Your task to perform on an android device: allow notifications from all sites in the chrome app Image 0: 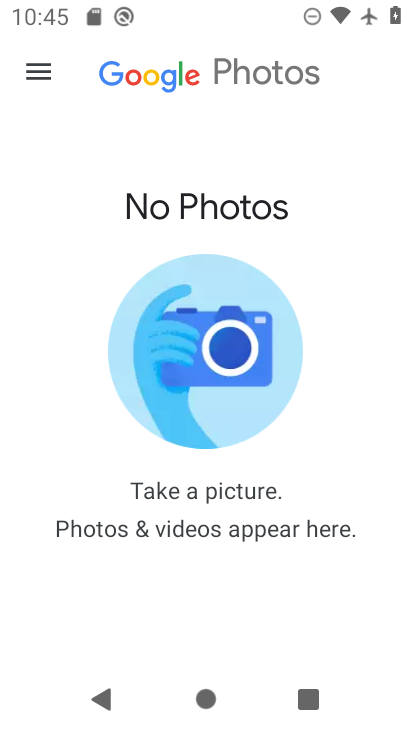
Step 0: press back button
Your task to perform on an android device: allow notifications from all sites in the chrome app Image 1: 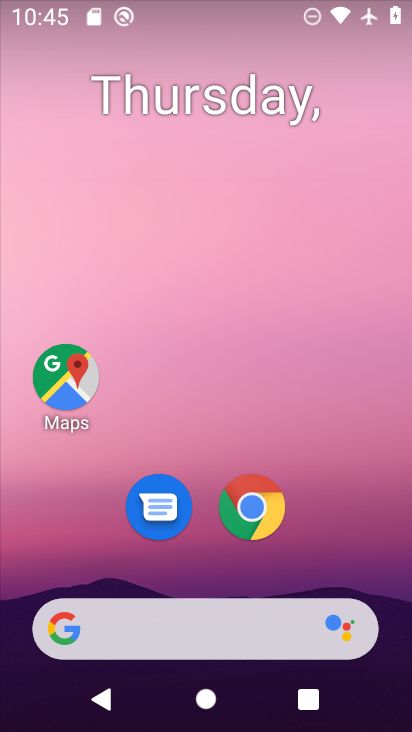
Step 1: drag from (360, 497) to (325, 291)
Your task to perform on an android device: allow notifications from all sites in the chrome app Image 2: 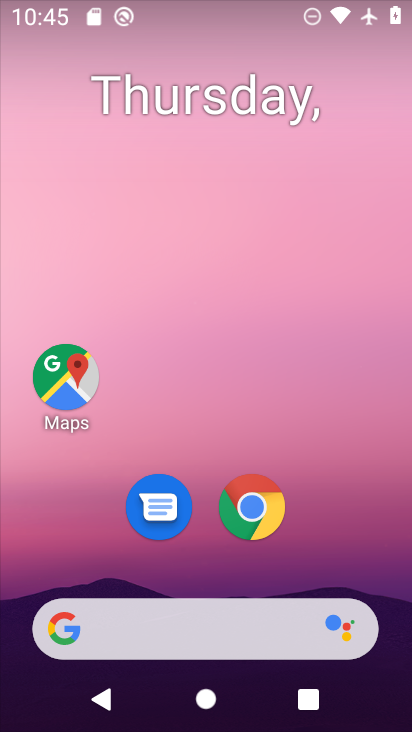
Step 2: drag from (363, 539) to (253, 19)
Your task to perform on an android device: allow notifications from all sites in the chrome app Image 3: 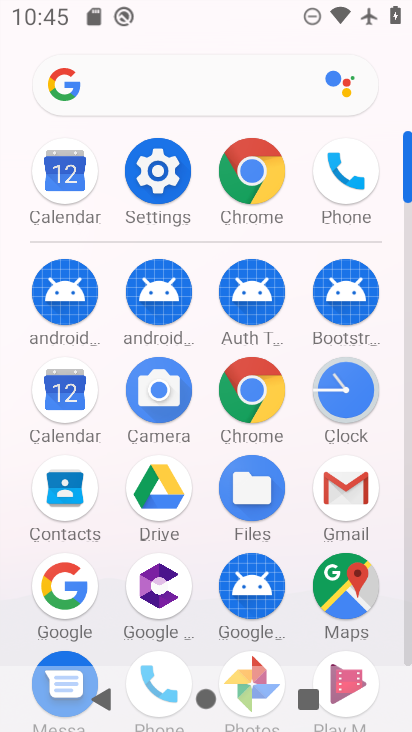
Step 3: click (248, 388)
Your task to perform on an android device: allow notifications from all sites in the chrome app Image 4: 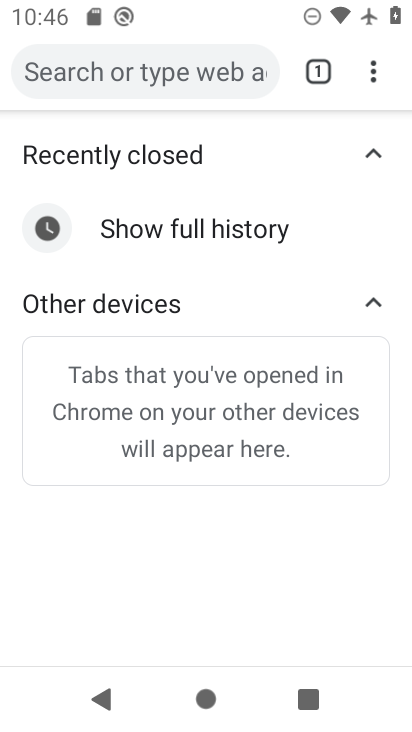
Step 4: drag from (375, 75) to (123, 501)
Your task to perform on an android device: allow notifications from all sites in the chrome app Image 5: 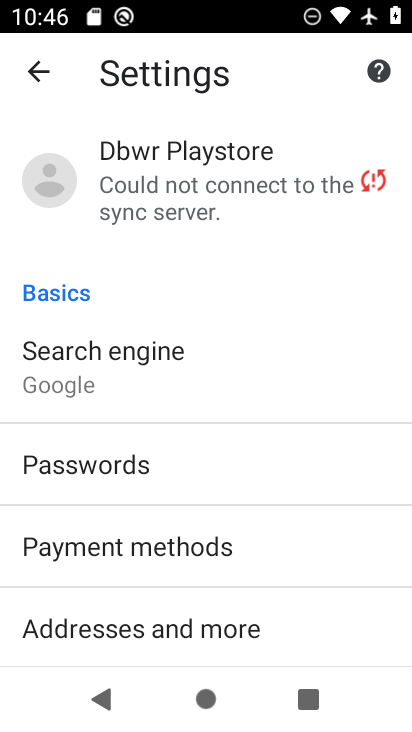
Step 5: drag from (228, 566) to (236, 301)
Your task to perform on an android device: allow notifications from all sites in the chrome app Image 6: 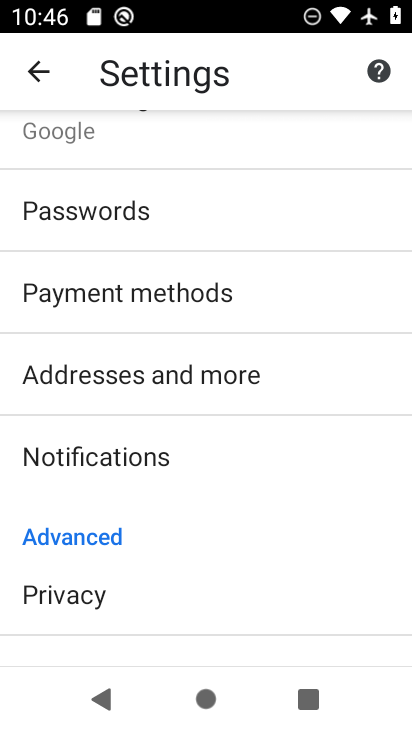
Step 6: drag from (255, 497) to (265, 162)
Your task to perform on an android device: allow notifications from all sites in the chrome app Image 7: 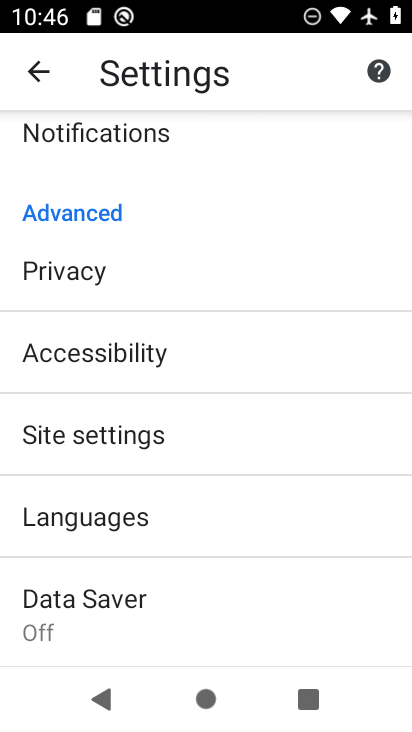
Step 7: drag from (266, 206) to (277, 543)
Your task to perform on an android device: allow notifications from all sites in the chrome app Image 8: 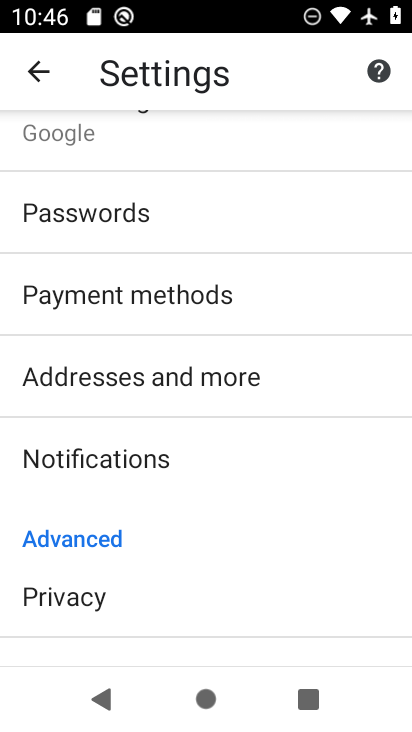
Step 8: click (146, 462)
Your task to perform on an android device: allow notifications from all sites in the chrome app Image 9: 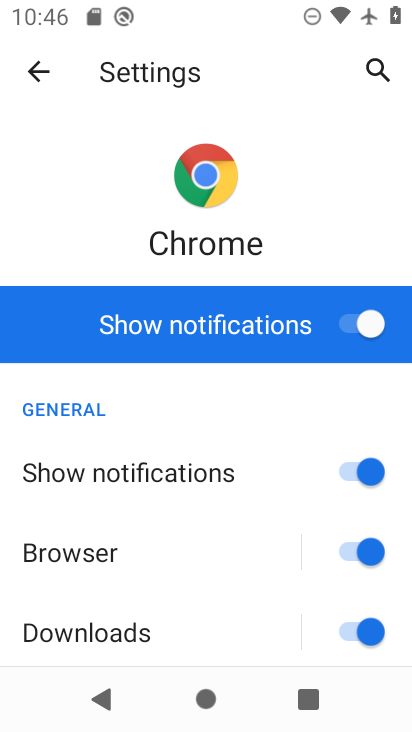
Step 9: click (50, 75)
Your task to perform on an android device: allow notifications from all sites in the chrome app Image 10: 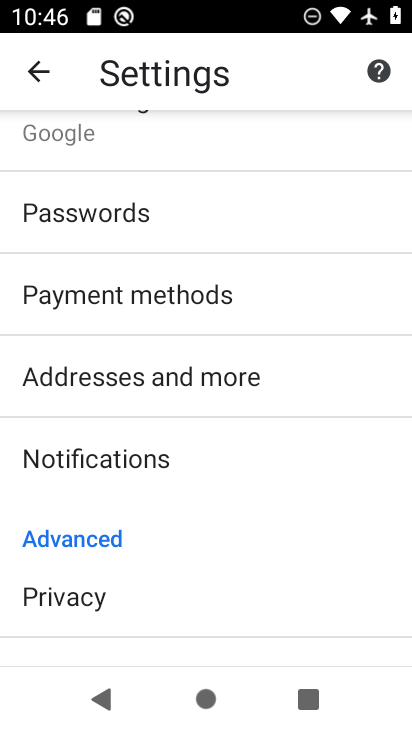
Step 10: drag from (234, 575) to (234, 153)
Your task to perform on an android device: allow notifications from all sites in the chrome app Image 11: 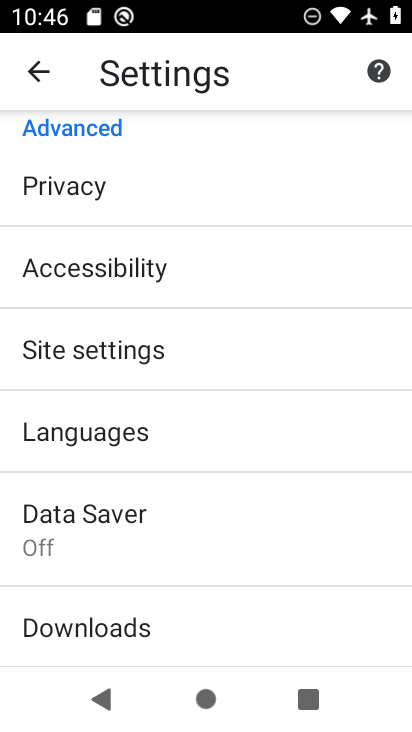
Step 11: click (143, 355)
Your task to perform on an android device: allow notifications from all sites in the chrome app Image 12: 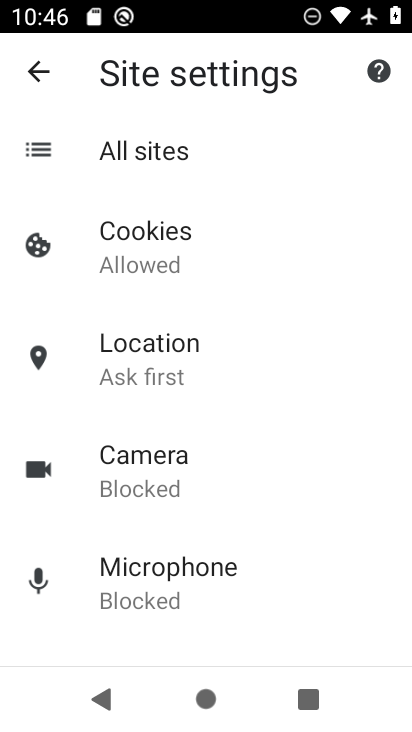
Step 12: drag from (235, 541) to (248, 159)
Your task to perform on an android device: allow notifications from all sites in the chrome app Image 13: 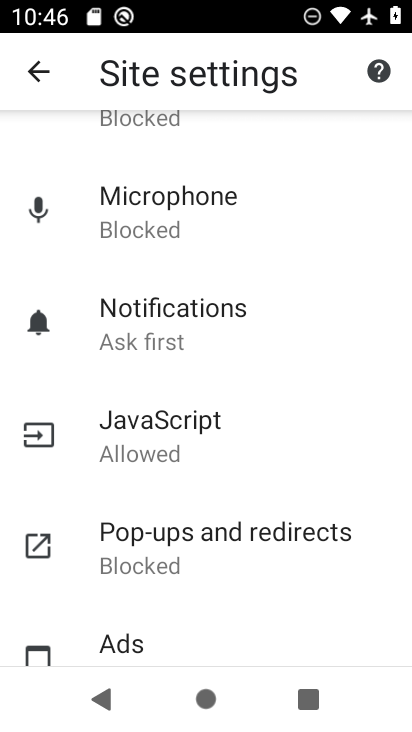
Step 13: click (229, 314)
Your task to perform on an android device: allow notifications from all sites in the chrome app Image 14: 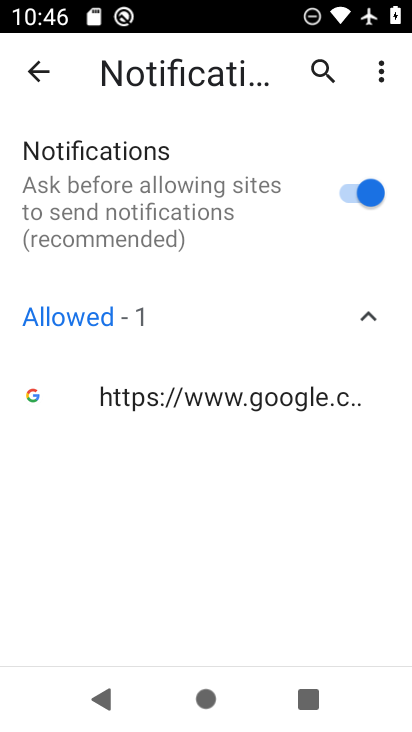
Step 14: task complete